Your task to perform on an android device: turn on showing notifications on the lock screen Image 0: 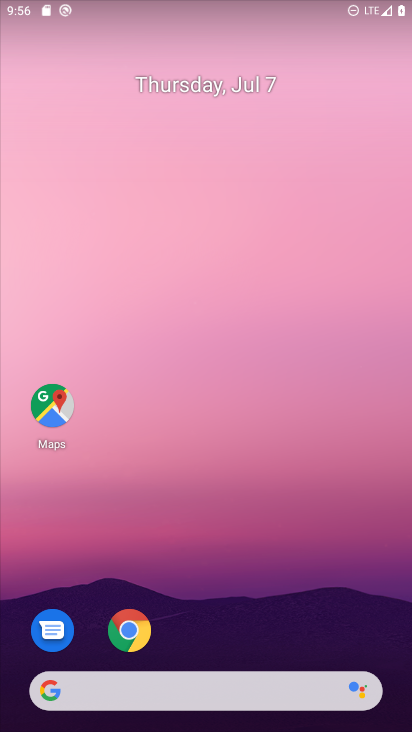
Step 0: drag from (217, 639) to (194, 179)
Your task to perform on an android device: turn on showing notifications on the lock screen Image 1: 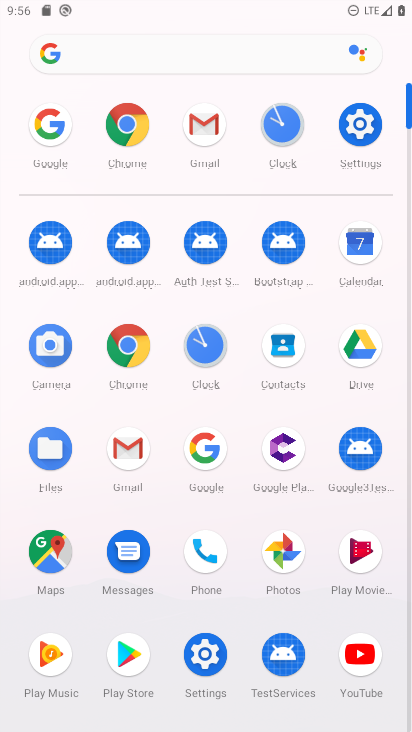
Step 1: click (349, 141)
Your task to perform on an android device: turn on showing notifications on the lock screen Image 2: 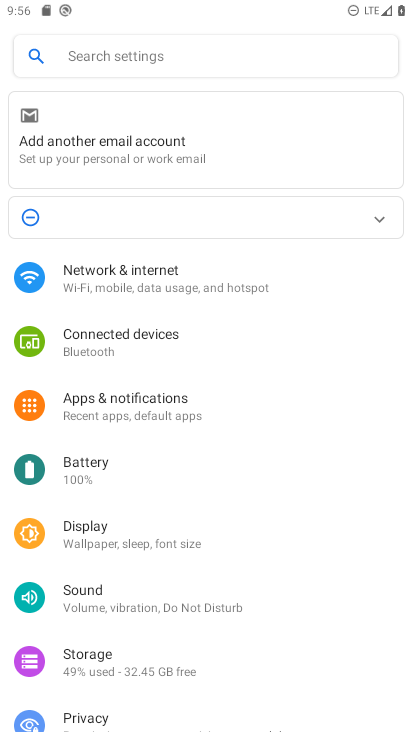
Step 2: click (127, 410)
Your task to perform on an android device: turn on showing notifications on the lock screen Image 3: 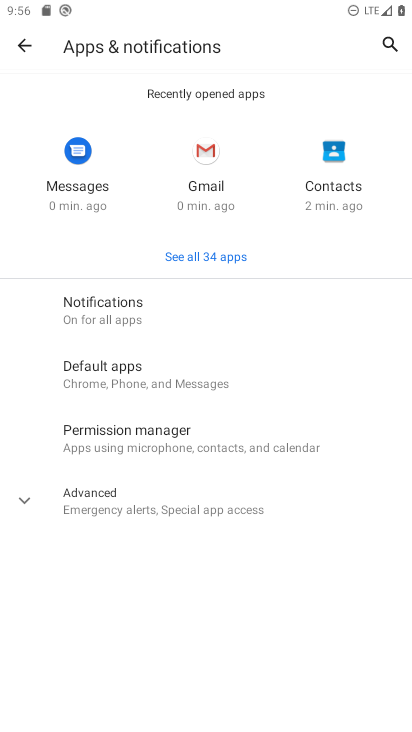
Step 3: click (134, 322)
Your task to perform on an android device: turn on showing notifications on the lock screen Image 4: 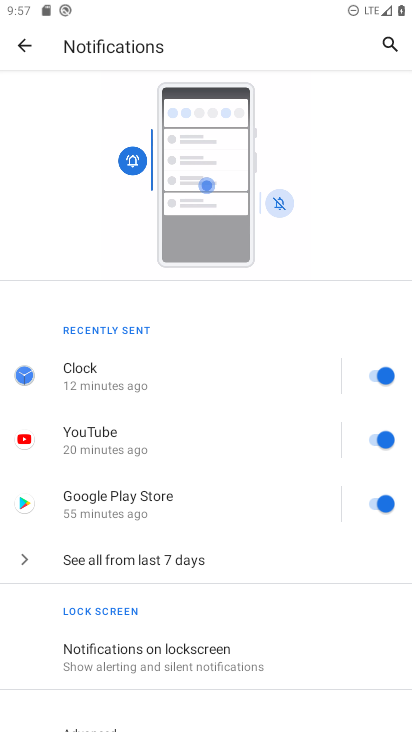
Step 4: drag from (227, 631) to (203, 349)
Your task to perform on an android device: turn on showing notifications on the lock screen Image 5: 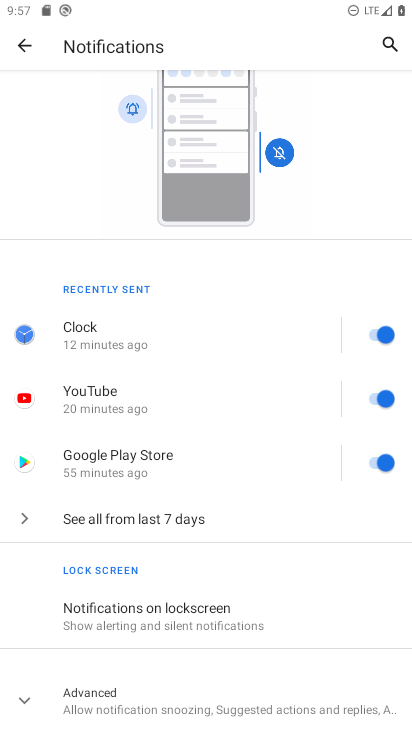
Step 5: click (181, 622)
Your task to perform on an android device: turn on showing notifications on the lock screen Image 6: 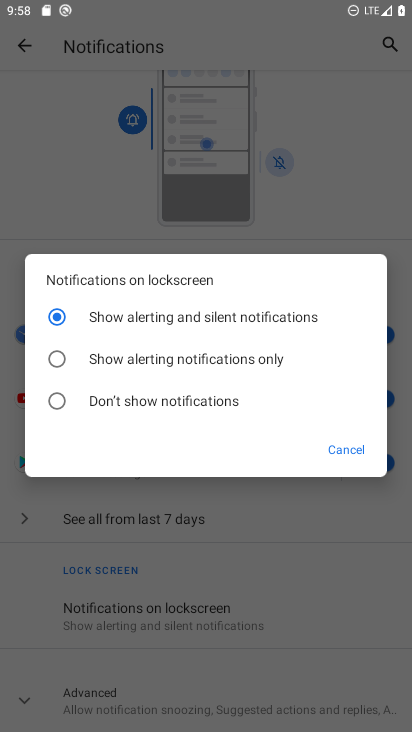
Step 6: task complete